Your task to perform on an android device: open chrome privacy settings Image 0: 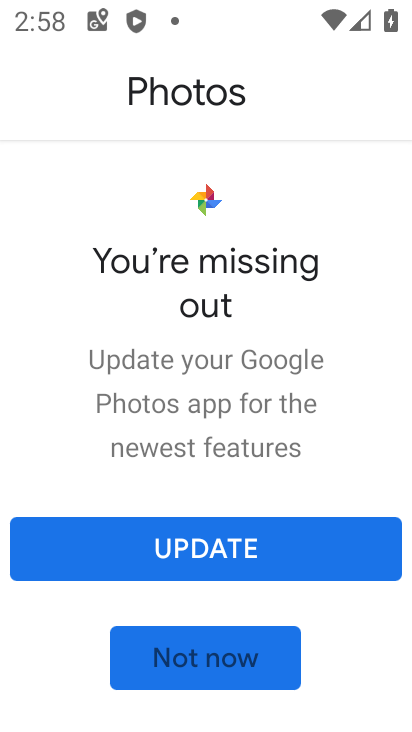
Step 0: press back button
Your task to perform on an android device: open chrome privacy settings Image 1: 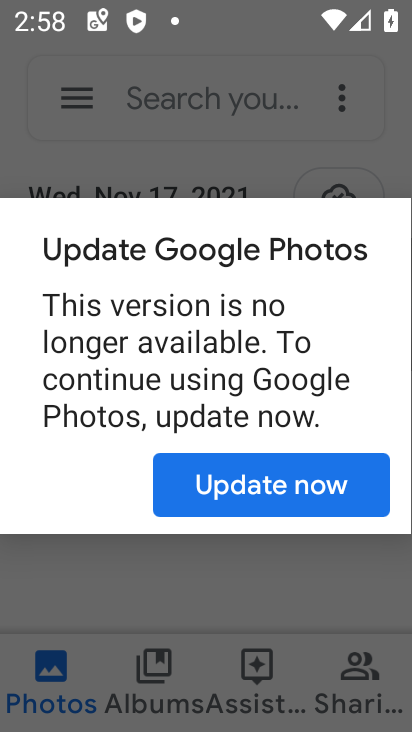
Step 1: press home button
Your task to perform on an android device: open chrome privacy settings Image 2: 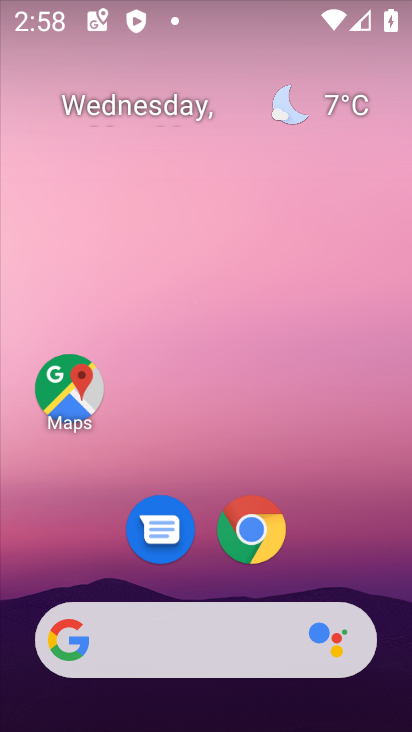
Step 2: click (245, 530)
Your task to perform on an android device: open chrome privacy settings Image 3: 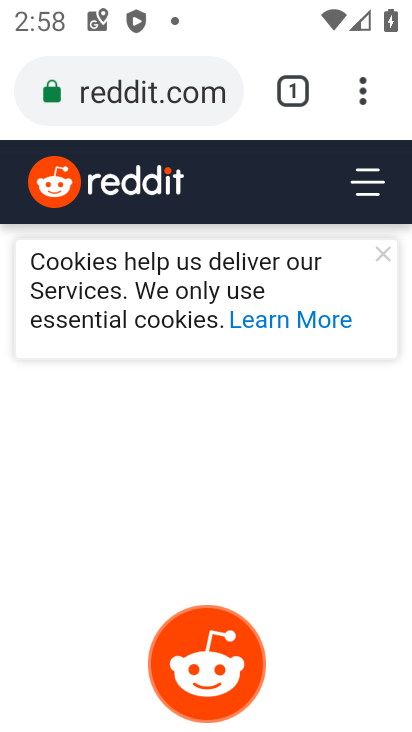
Step 3: click (358, 91)
Your task to perform on an android device: open chrome privacy settings Image 4: 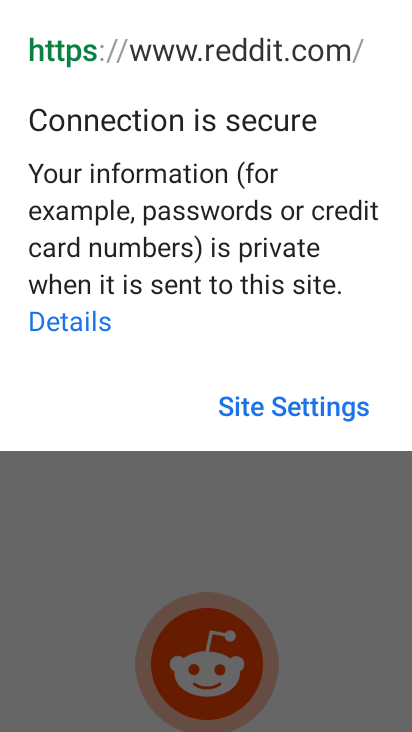
Step 4: press back button
Your task to perform on an android device: open chrome privacy settings Image 5: 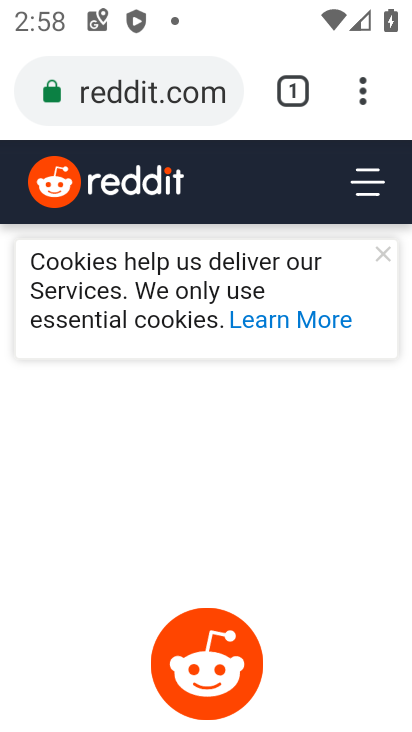
Step 5: click (338, 99)
Your task to perform on an android device: open chrome privacy settings Image 6: 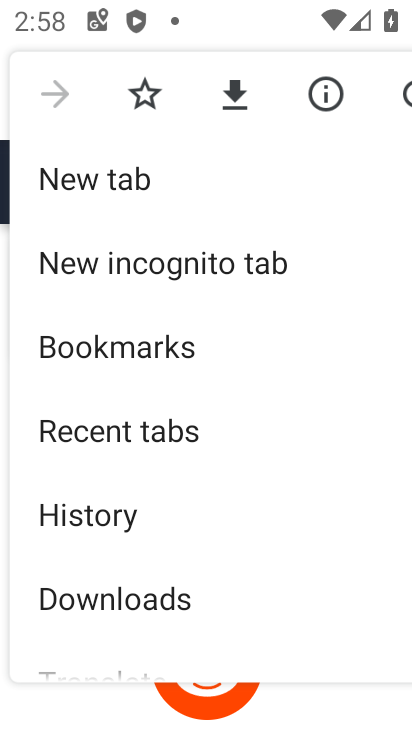
Step 6: drag from (69, 627) to (212, 158)
Your task to perform on an android device: open chrome privacy settings Image 7: 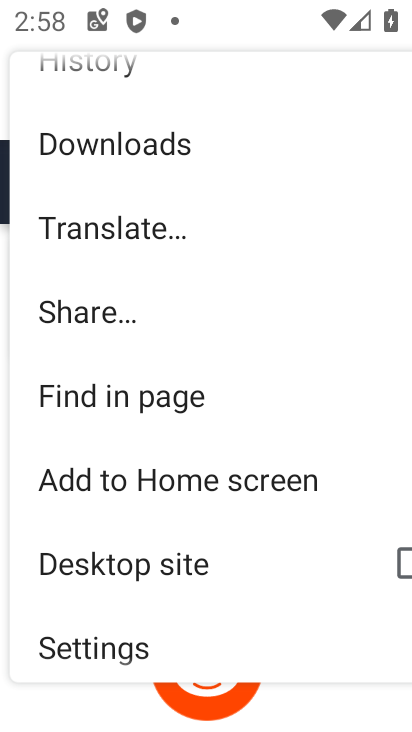
Step 7: click (81, 647)
Your task to perform on an android device: open chrome privacy settings Image 8: 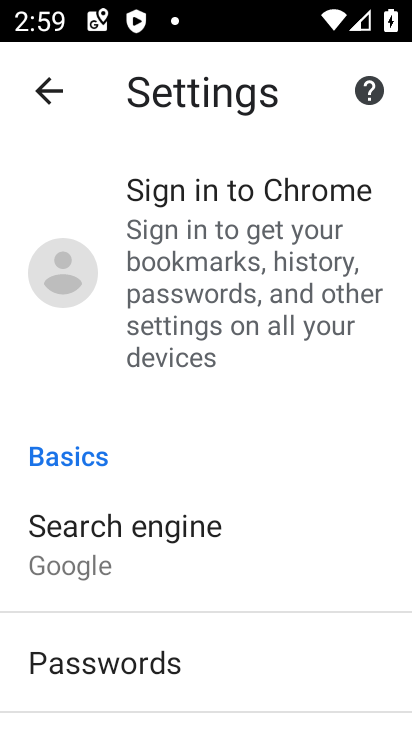
Step 8: drag from (137, 686) to (295, 81)
Your task to perform on an android device: open chrome privacy settings Image 9: 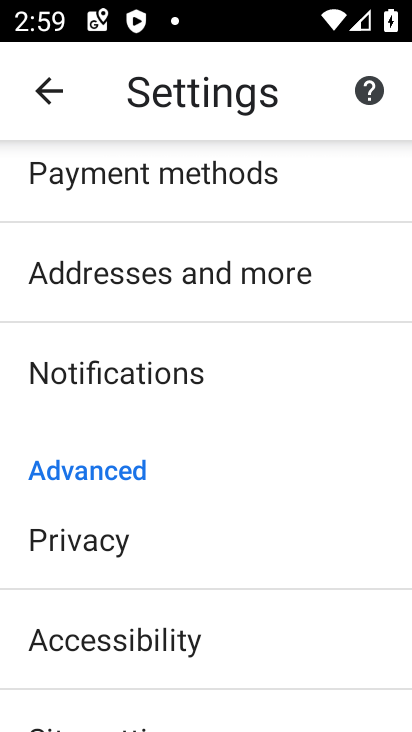
Step 9: click (98, 537)
Your task to perform on an android device: open chrome privacy settings Image 10: 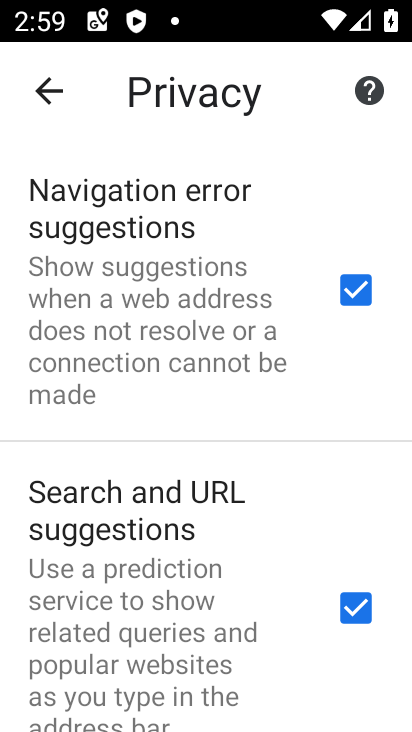
Step 10: task complete